Your task to perform on an android device: delete the emails in spam in the gmail app Image 0: 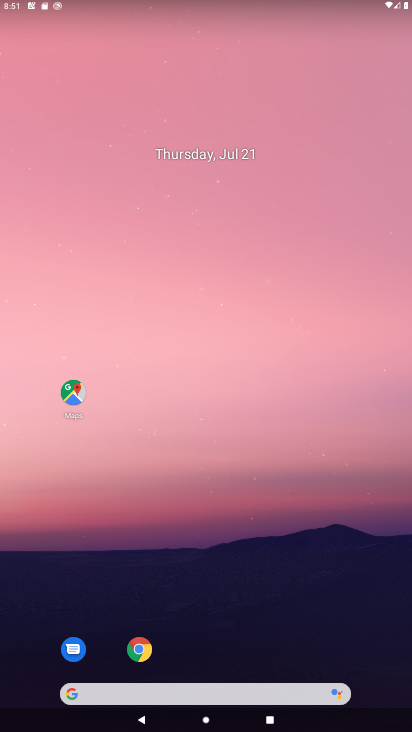
Step 0: drag from (220, 665) to (234, 97)
Your task to perform on an android device: delete the emails in spam in the gmail app Image 1: 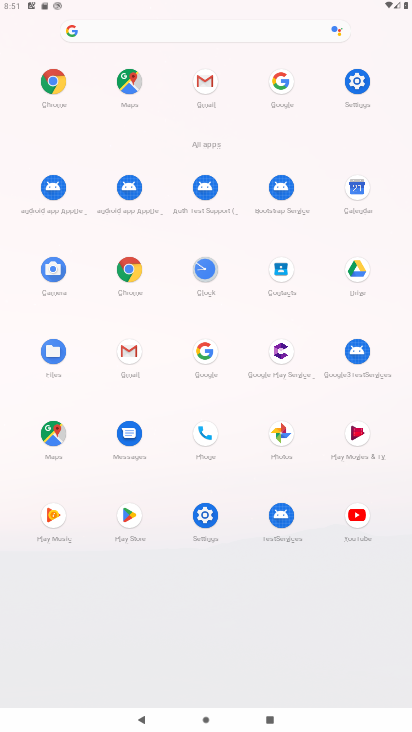
Step 1: click (207, 84)
Your task to perform on an android device: delete the emails in spam in the gmail app Image 2: 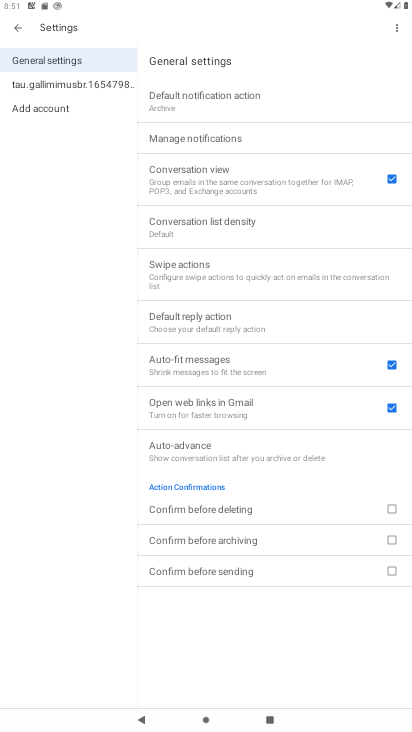
Step 2: press back button
Your task to perform on an android device: delete the emails in spam in the gmail app Image 3: 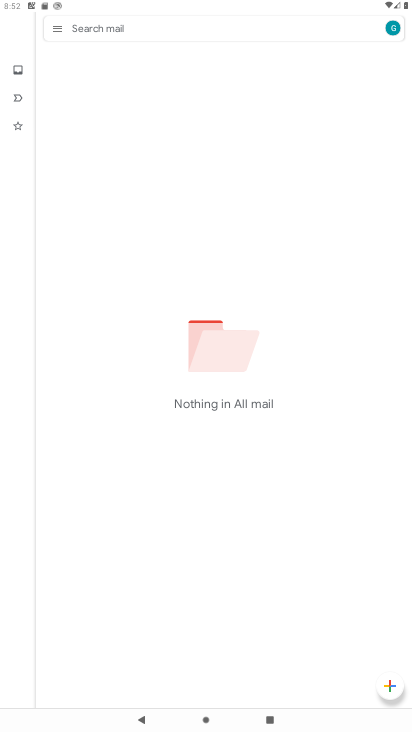
Step 3: click (59, 29)
Your task to perform on an android device: delete the emails in spam in the gmail app Image 4: 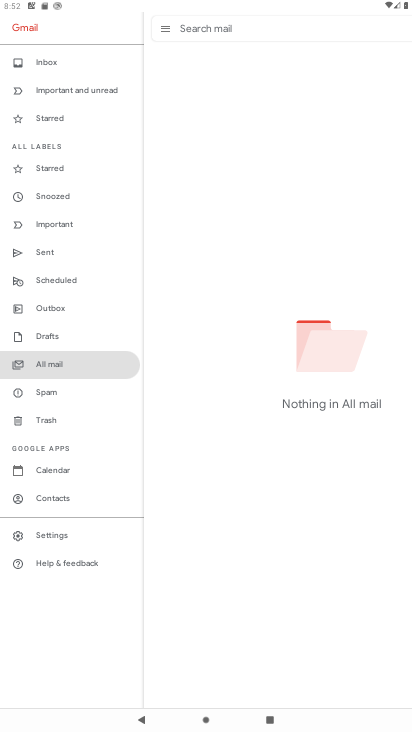
Step 4: click (42, 394)
Your task to perform on an android device: delete the emails in spam in the gmail app Image 5: 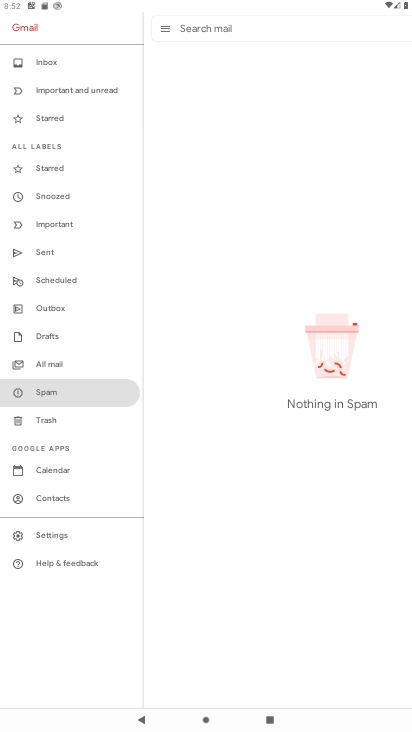
Step 5: task complete